Your task to perform on an android device: Search for seafood restaurants on Google Maps Image 0: 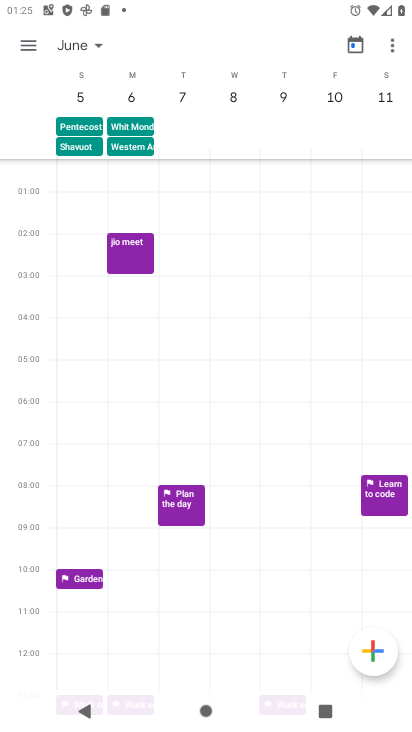
Step 0: press home button
Your task to perform on an android device: Search for seafood restaurants on Google Maps Image 1: 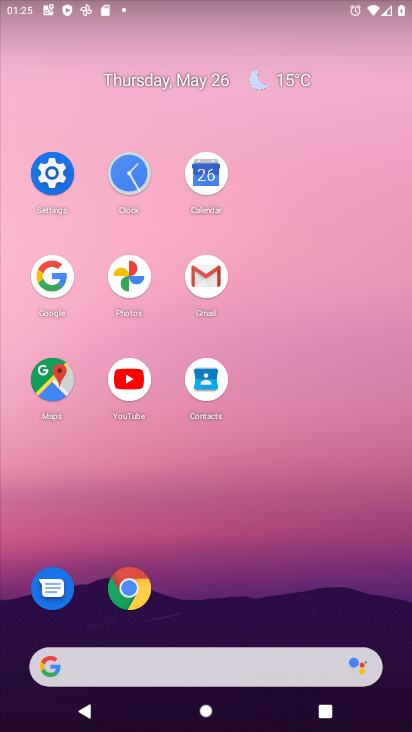
Step 1: click (57, 375)
Your task to perform on an android device: Search for seafood restaurants on Google Maps Image 2: 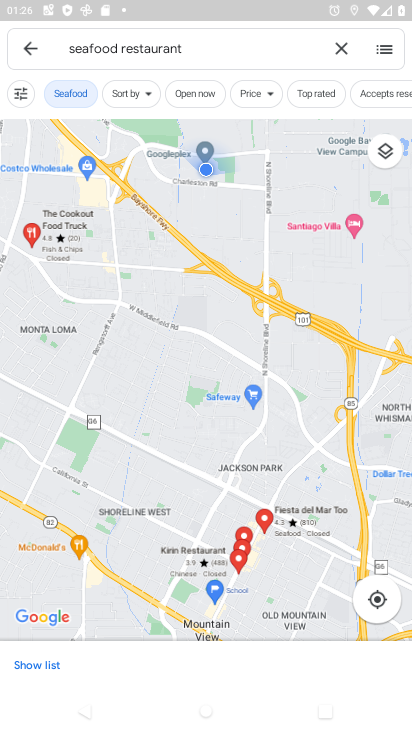
Step 2: task complete